Your task to perform on an android device: Search for vegetarian restaurants on Maps Image 0: 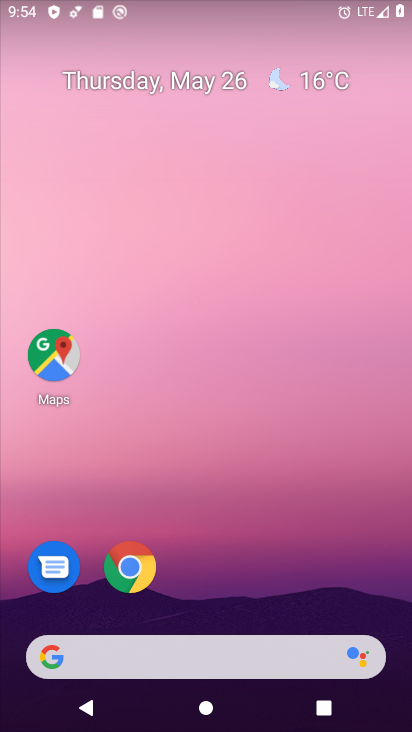
Step 0: click (65, 357)
Your task to perform on an android device: Search for vegetarian restaurants on Maps Image 1: 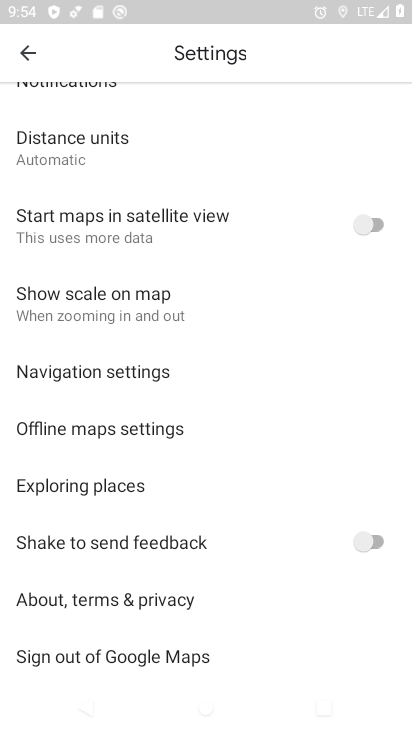
Step 1: click (15, 58)
Your task to perform on an android device: Search for vegetarian restaurants on Maps Image 2: 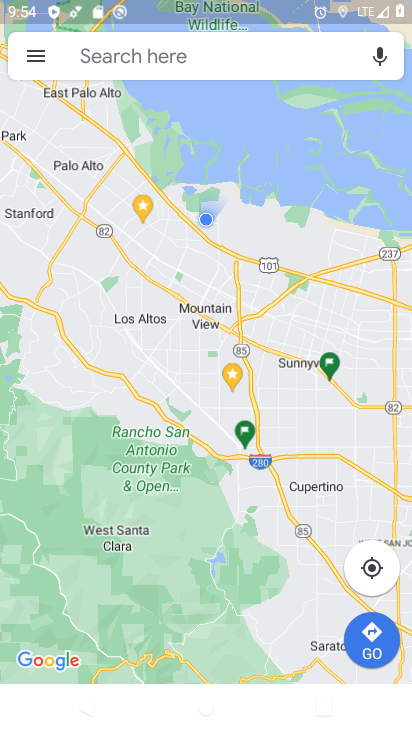
Step 2: click (141, 53)
Your task to perform on an android device: Search for vegetarian restaurants on Maps Image 3: 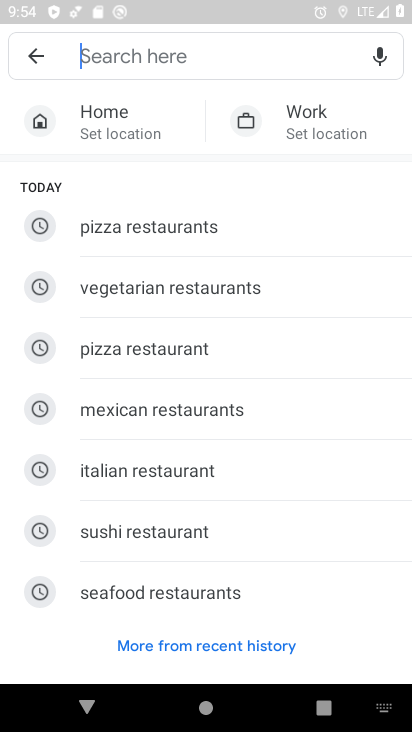
Step 3: type "vegetarian restaurants"
Your task to perform on an android device: Search for vegetarian restaurants on Maps Image 4: 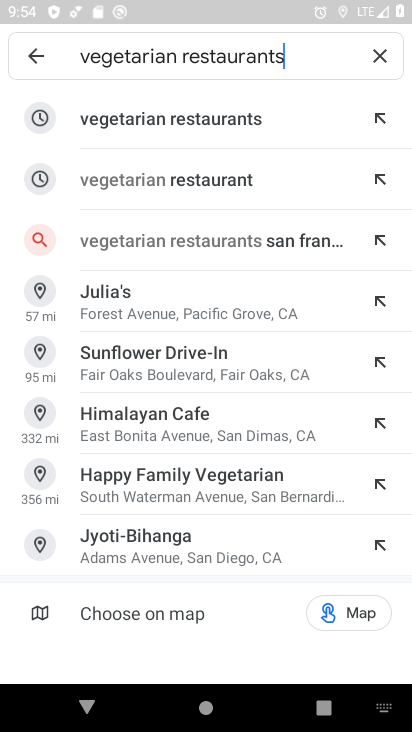
Step 4: click (148, 115)
Your task to perform on an android device: Search for vegetarian restaurants on Maps Image 5: 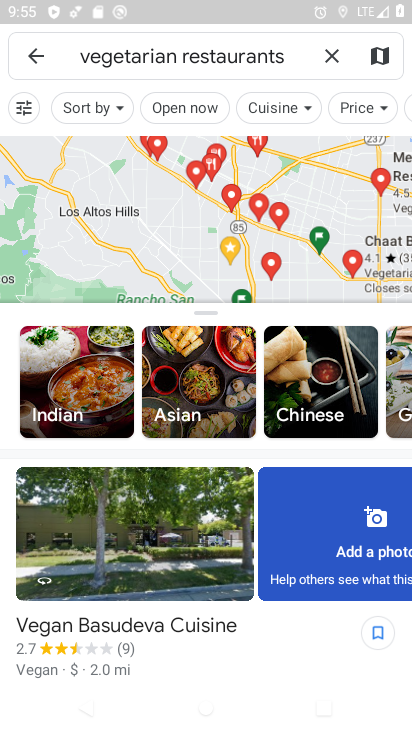
Step 5: task complete